Your task to perform on an android device: turn off javascript in the chrome app Image 0: 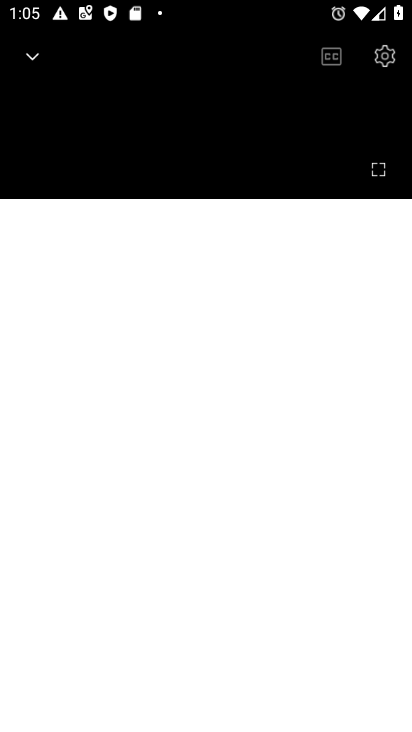
Step 0: press home button
Your task to perform on an android device: turn off javascript in the chrome app Image 1: 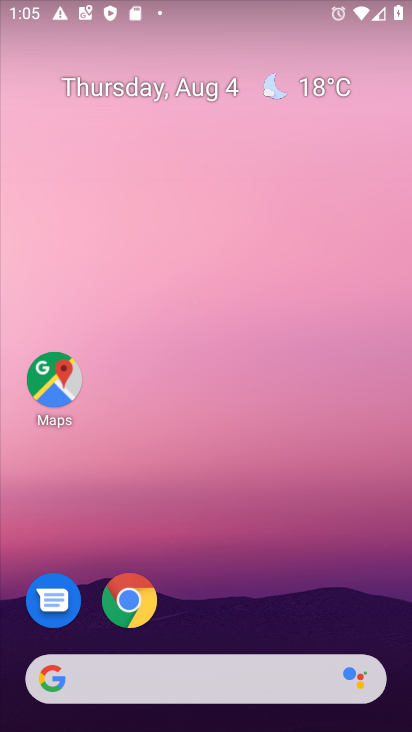
Step 1: click (128, 606)
Your task to perform on an android device: turn off javascript in the chrome app Image 2: 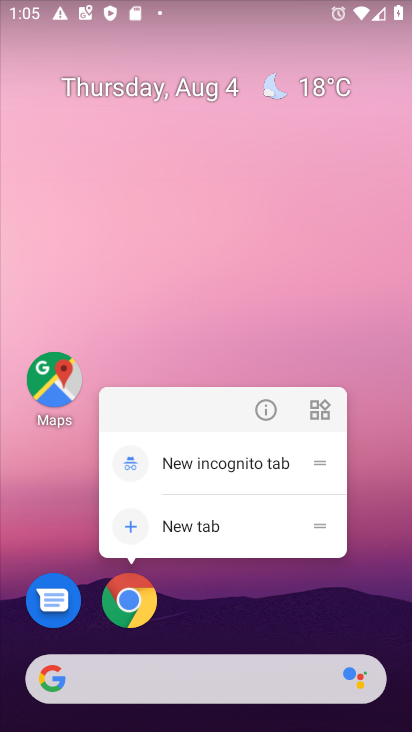
Step 2: click (129, 601)
Your task to perform on an android device: turn off javascript in the chrome app Image 3: 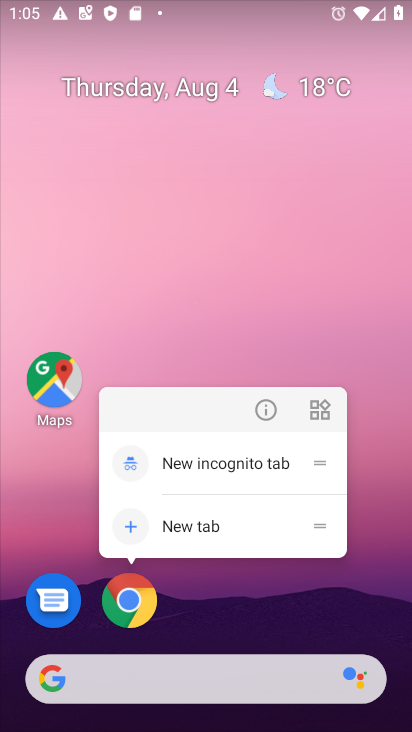
Step 3: click (129, 601)
Your task to perform on an android device: turn off javascript in the chrome app Image 4: 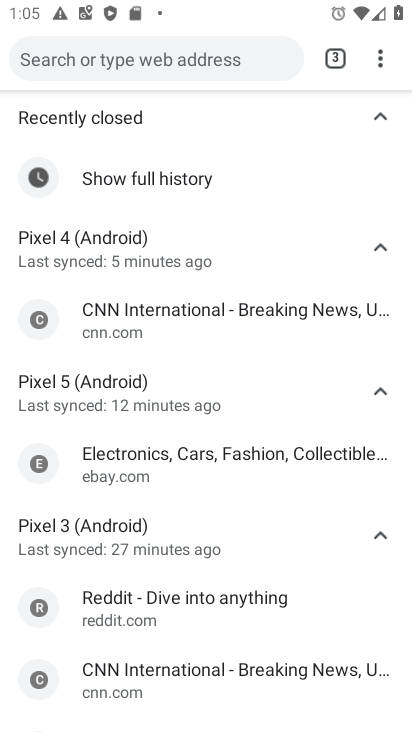
Step 4: drag from (382, 53) to (200, 564)
Your task to perform on an android device: turn off javascript in the chrome app Image 5: 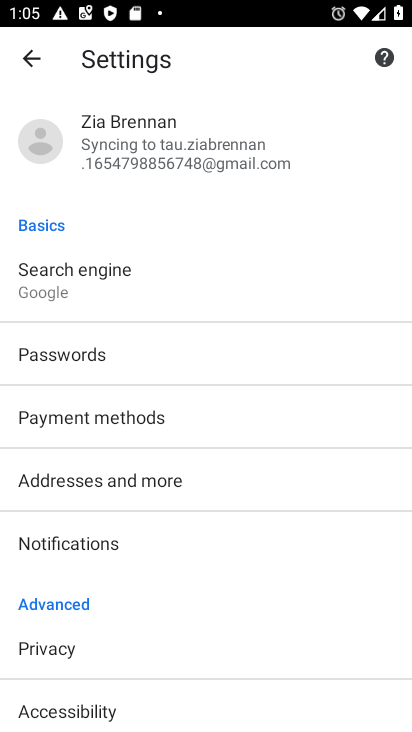
Step 5: drag from (184, 598) to (273, 232)
Your task to perform on an android device: turn off javascript in the chrome app Image 6: 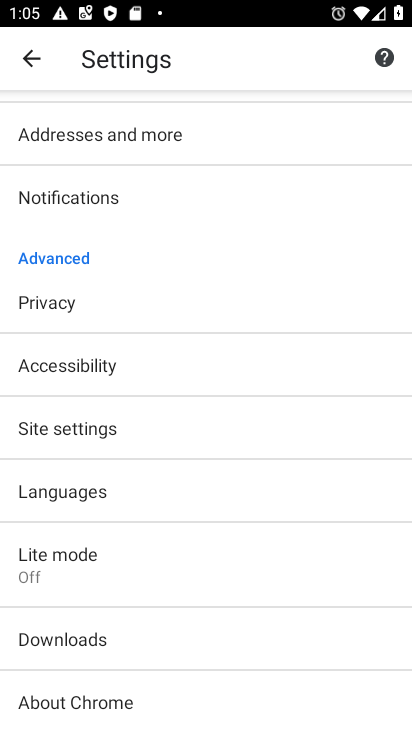
Step 6: click (97, 428)
Your task to perform on an android device: turn off javascript in the chrome app Image 7: 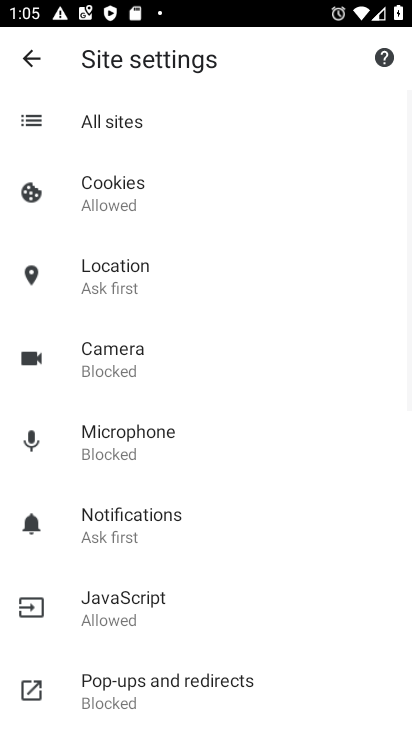
Step 7: click (131, 610)
Your task to perform on an android device: turn off javascript in the chrome app Image 8: 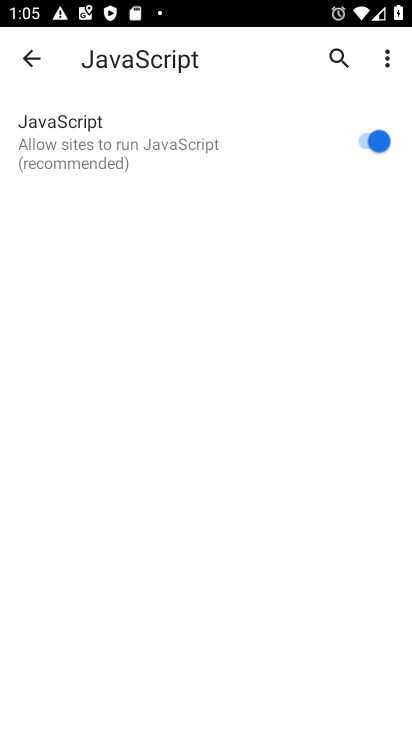
Step 8: click (362, 138)
Your task to perform on an android device: turn off javascript in the chrome app Image 9: 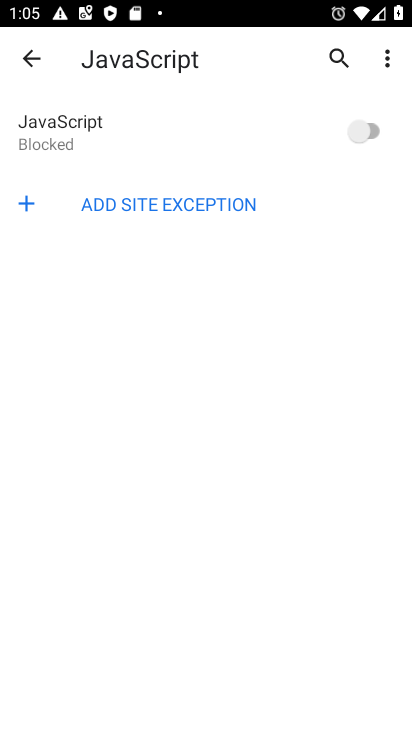
Step 9: task complete